Your task to perform on an android device: Open Maps and search for coffee Image 0: 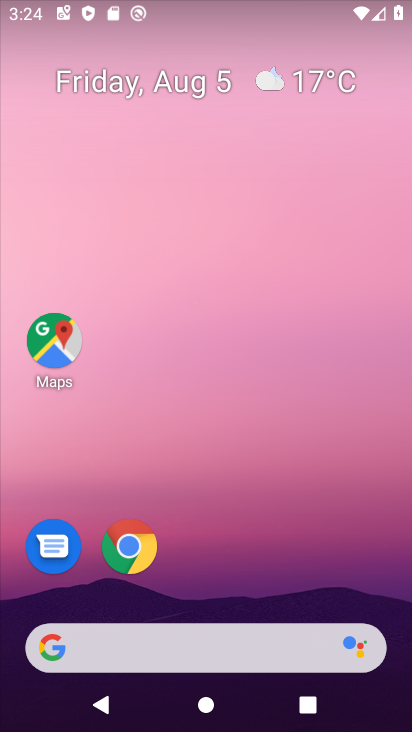
Step 0: drag from (326, 585) to (322, 253)
Your task to perform on an android device: Open Maps and search for coffee Image 1: 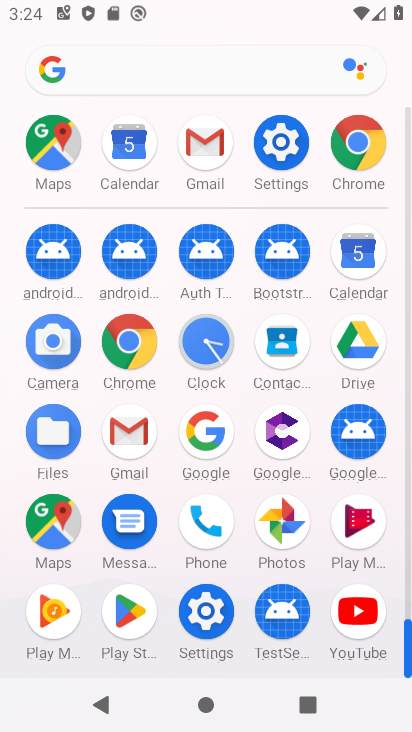
Step 1: click (48, 526)
Your task to perform on an android device: Open Maps and search for coffee Image 2: 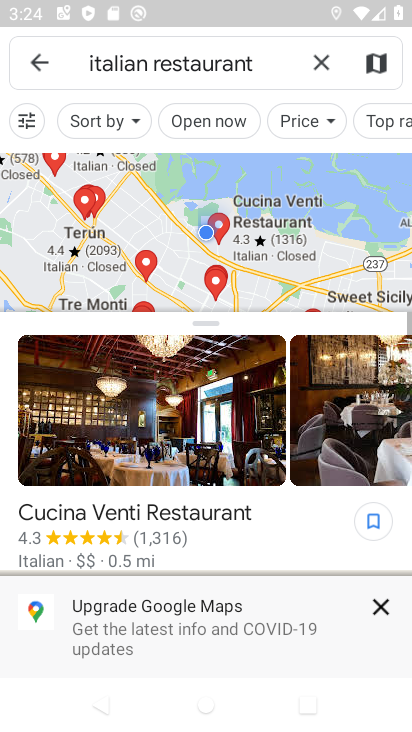
Step 2: click (320, 57)
Your task to perform on an android device: Open Maps and search for coffee Image 3: 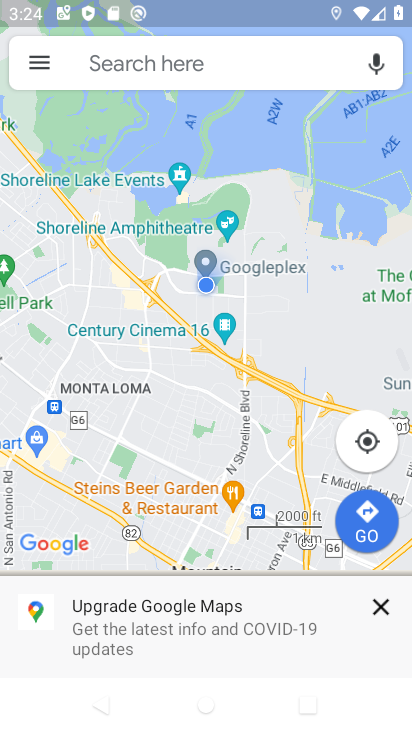
Step 3: click (225, 67)
Your task to perform on an android device: Open Maps and search for coffee Image 4: 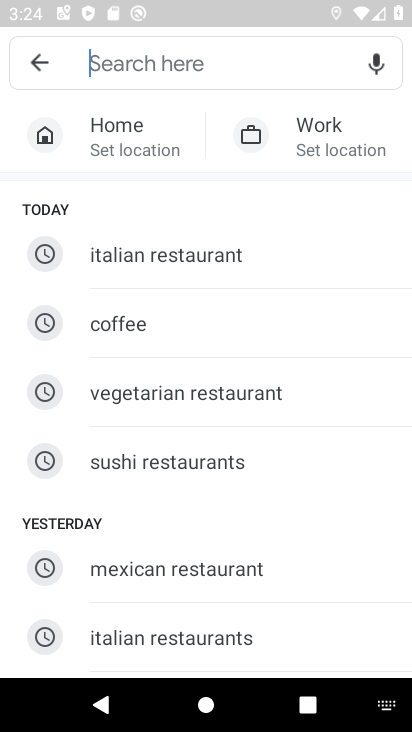
Step 4: type "coffee"
Your task to perform on an android device: Open Maps and search for coffee Image 5: 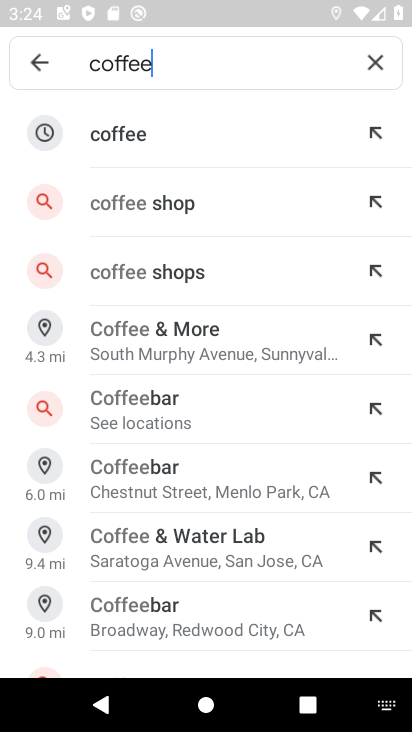
Step 5: click (264, 134)
Your task to perform on an android device: Open Maps and search for coffee Image 6: 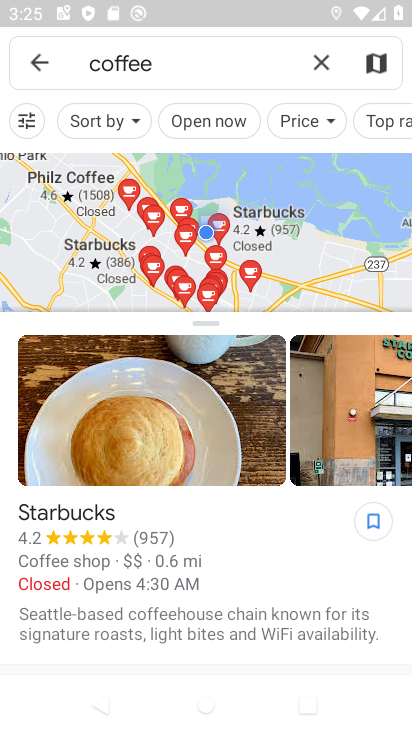
Step 6: task complete